Your task to perform on an android device: Check the weather Image 0: 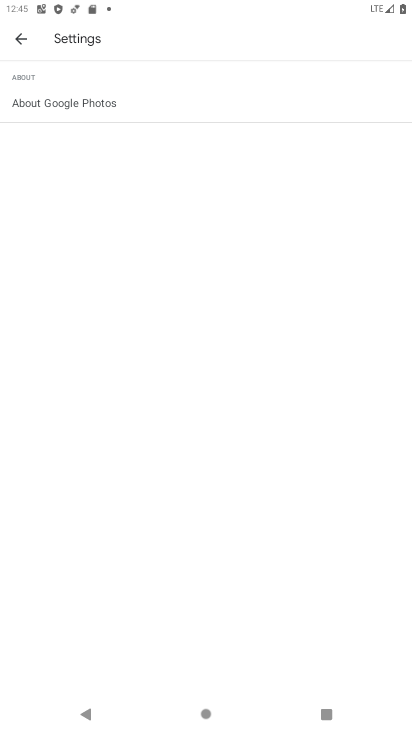
Step 0: press home button
Your task to perform on an android device: Check the weather Image 1: 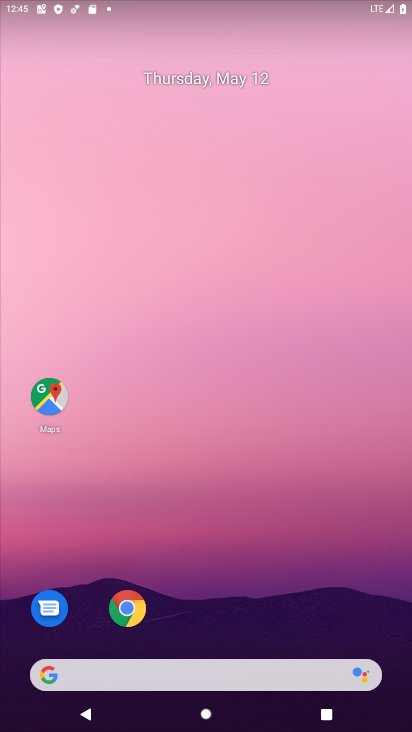
Step 1: click (125, 675)
Your task to perform on an android device: Check the weather Image 2: 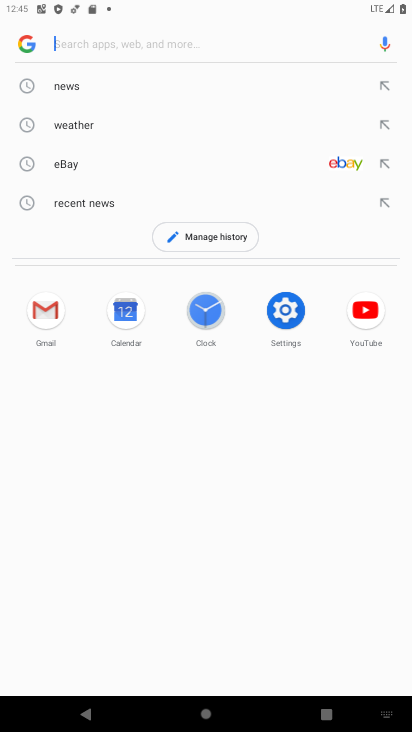
Step 2: click (80, 132)
Your task to perform on an android device: Check the weather Image 3: 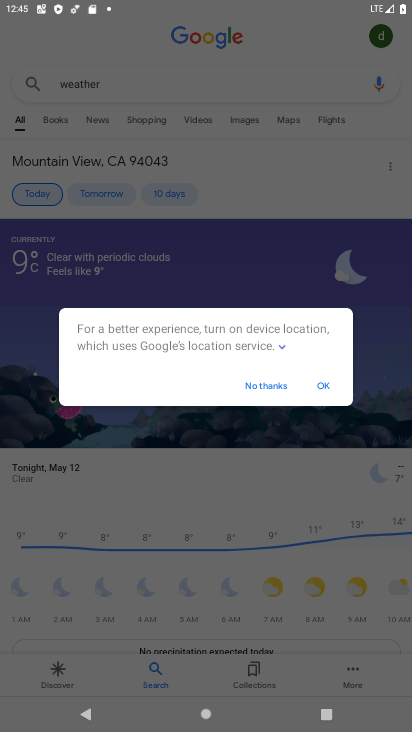
Step 3: click (269, 380)
Your task to perform on an android device: Check the weather Image 4: 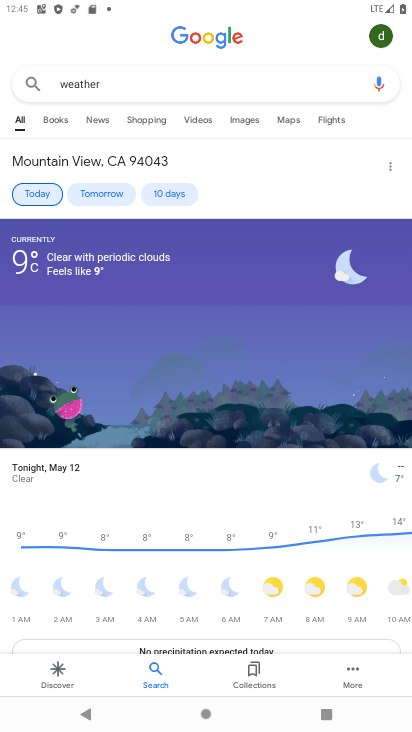
Step 4: task complete